Your task to perform on an android device: create a new album in the google photos Image 0: 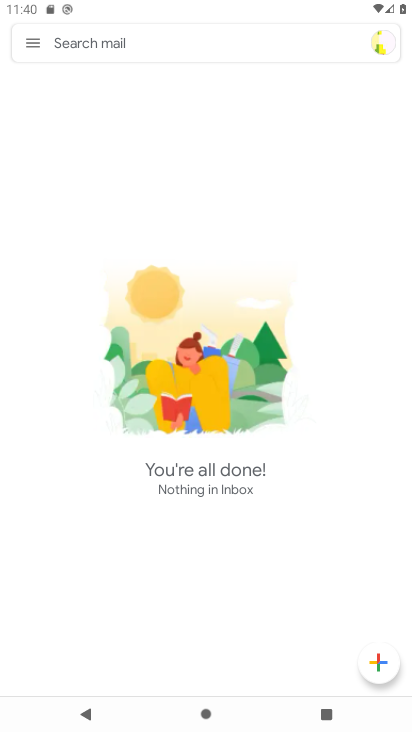
Step 0: press home button
Your task to perform on an android device: create a new album in the google photos Image 1: 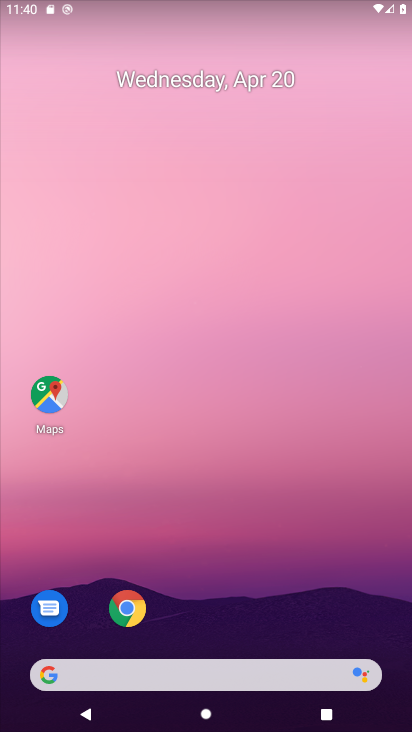
Step 1: drag from (187, 654) to (257, 57)
Your task to perform on an android device: create a new album in the google photos Image 2: 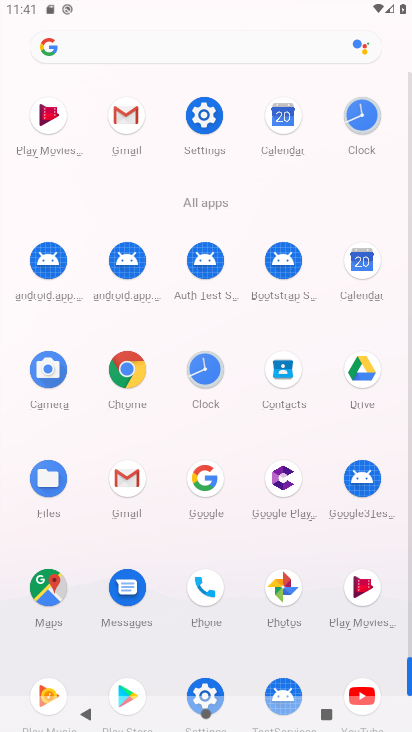
Step 2: drag from (169, 607) to (232, 164)
Your task to perform on an android device: create a new album in the google photos Image 3: 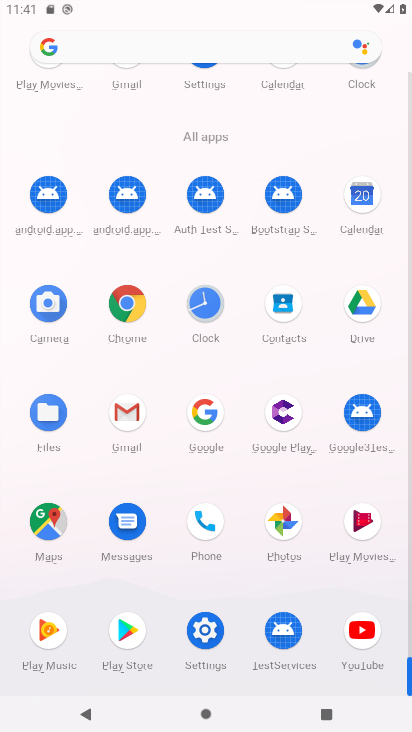
Step 3: click (282, 518)
Your task to perform on an android device: create a new album in the google photos Image 4: 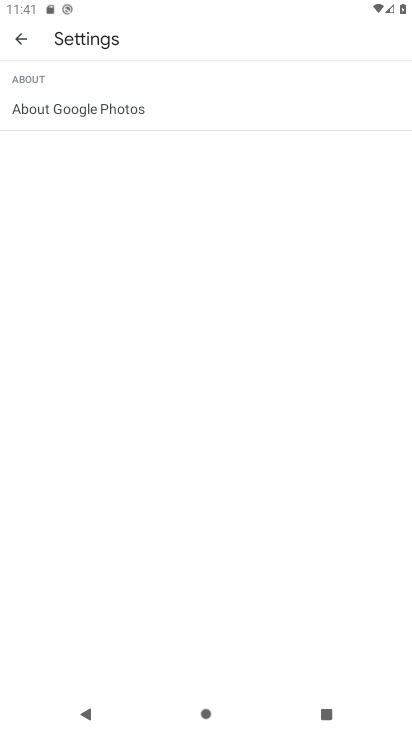
Step 4: click (19, 44)
Your task to perform on an android device: create a new album in the google photos Image 5: 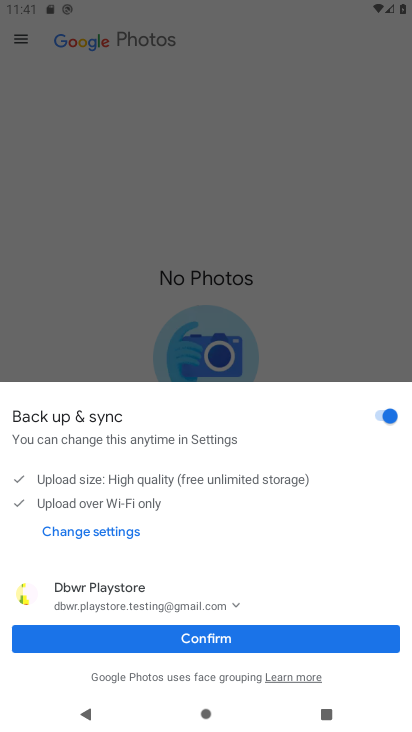
Step 5: click (214, 634)
Your task to perform on an android device: create a new album in the google photos Image 6: 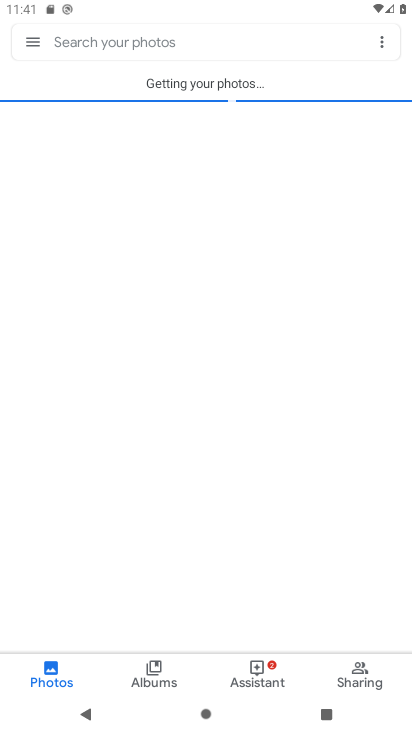
Step 6: click (22, 42)
Your task to perform on an android device: create a new album in the google photos Image 7: 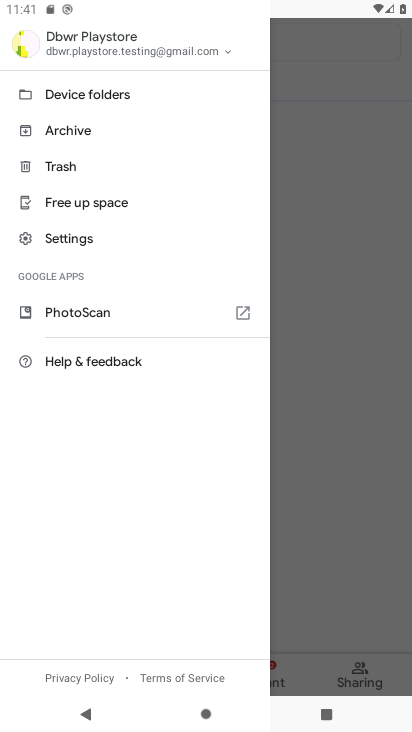
Step 7: click (309, 362)
Your task to perform on an android device: create a new album in the google photos Image 8: 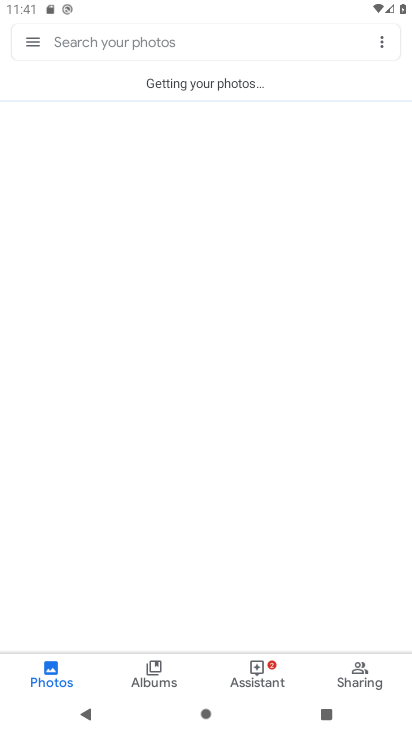
Step 8: click (145, 677)
Your task to perform on an android device: create a new album in the google photos Image 9: 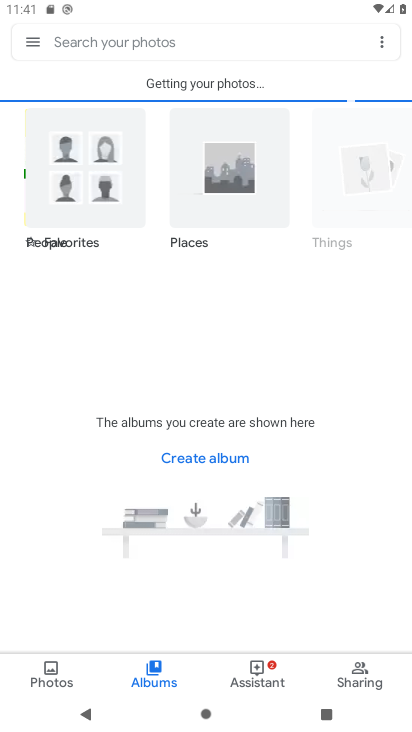
Step 9: click (206, 454)
Your task to perform on an android device: create a new album in the google photos Image 10: 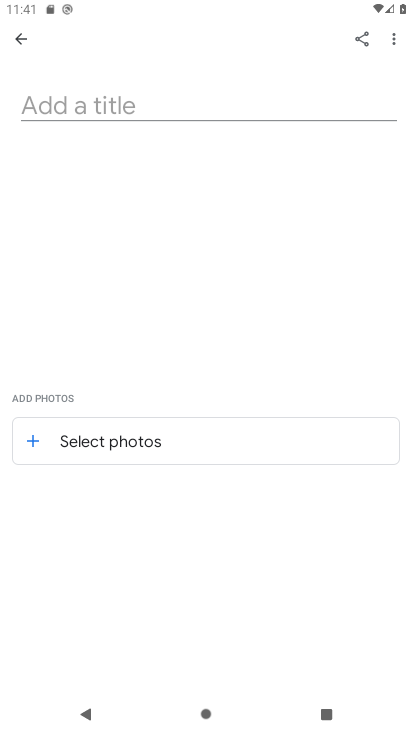
Step 10: click (145, 107)
Your task to perform on an android device: create a new album in the google photos Image 11: 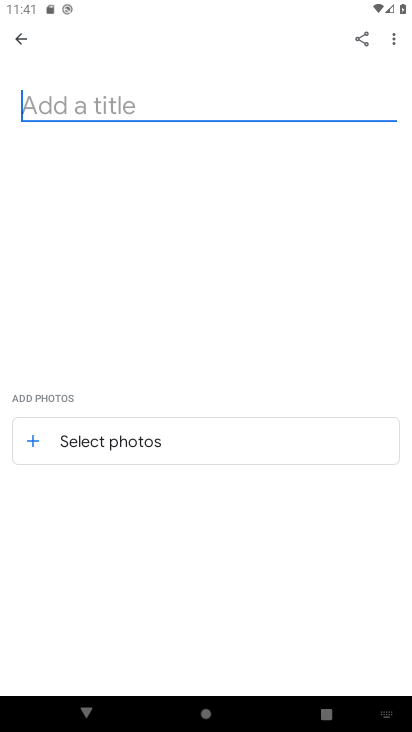
Step 11: type "hy"
Your task to perform on an android device: create a new album in the google photos Image 12: 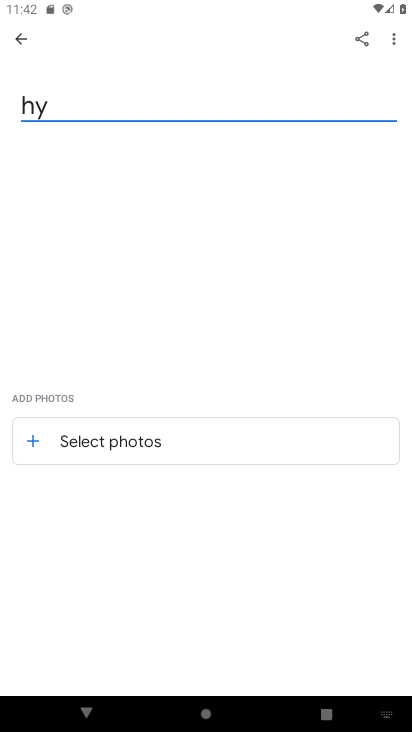
Step 12: click (195, 453)
Your task to perform on an android device: create a new album in the google photos Image 13: 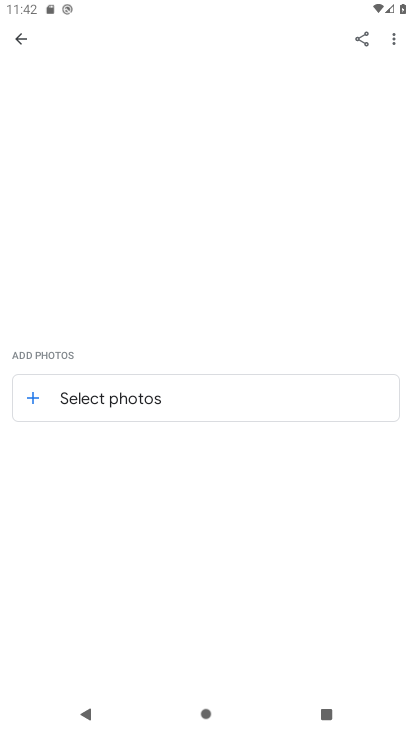
Step 13: click (32, 402)
Your task to perform on an android device: create a new album in the google photos Image 14: 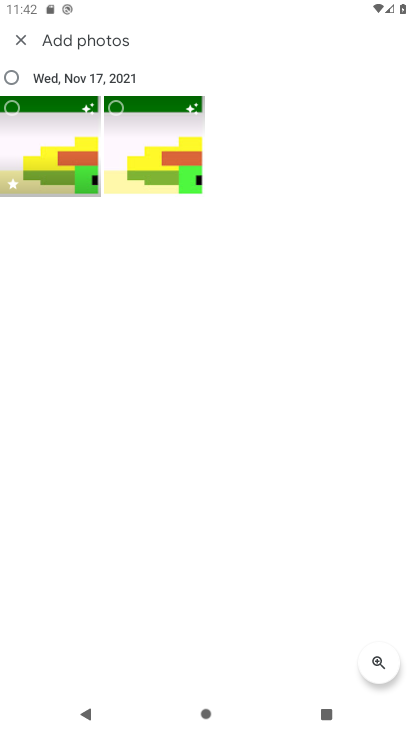
Step 14: click (103, 149)
Your task to perform on an android device: create a new album in the google photos Image 15: 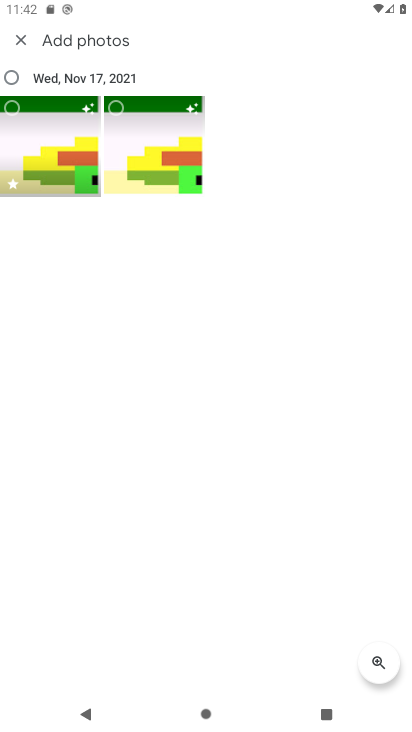
Step 15: click (115, 107)
Your task to perform on an android device: create a new album in the google photos Image 16: 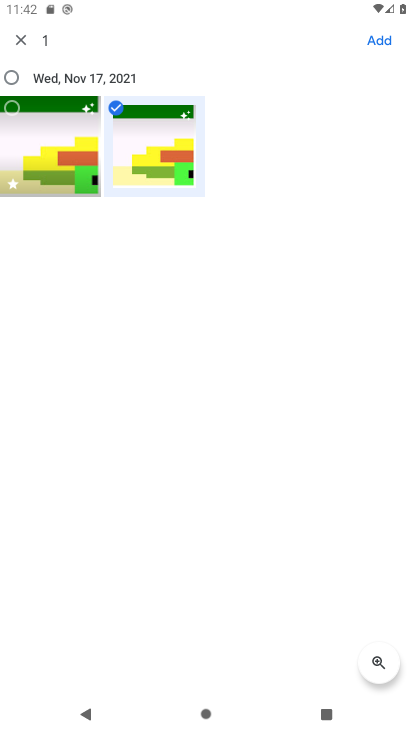
Step 16: click (371, 37)
Your task to perform on an android device: create a new album in the google photos Image 17: 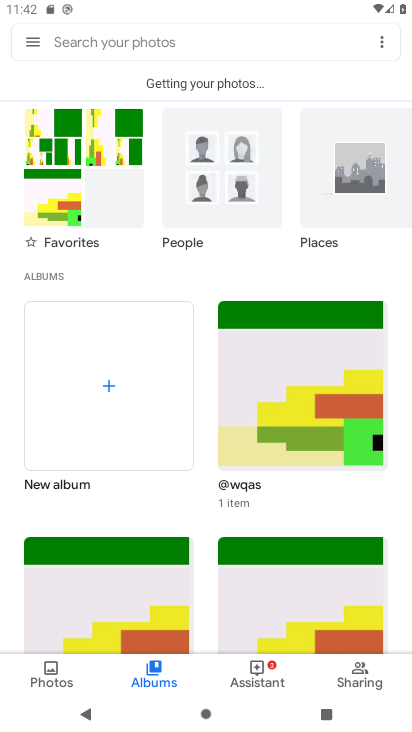
Step 17: task complete